Your task to perform on an android device: Go to network settings Image 0: 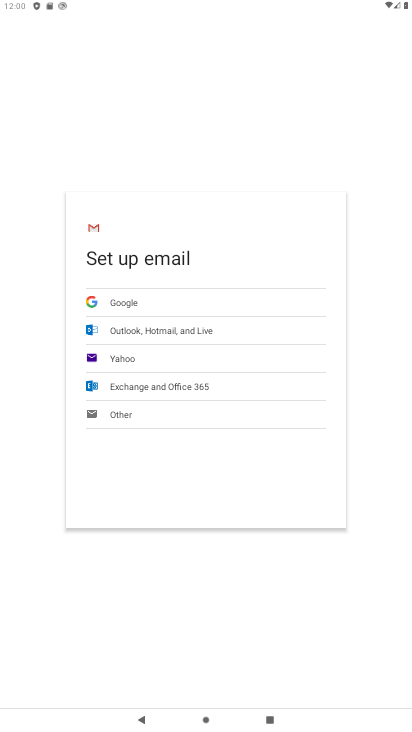
Step 0: press home button
Your task to perform on an android device: Go to network settings Image 1: 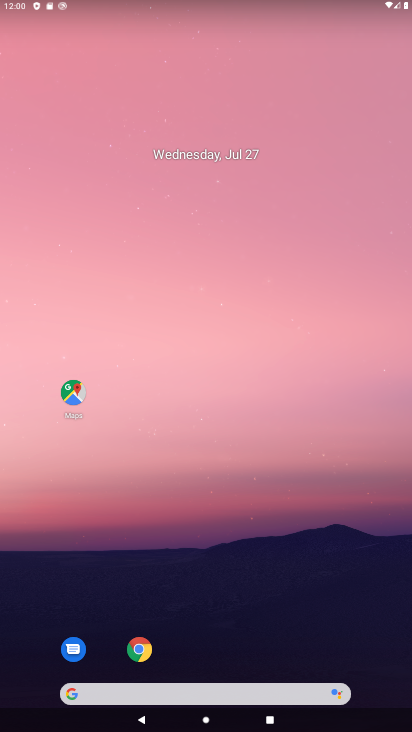
Step 1: drag from (223, 573) to (187, 174)
Your task to perform on an android device: Go to network settings Image 2: 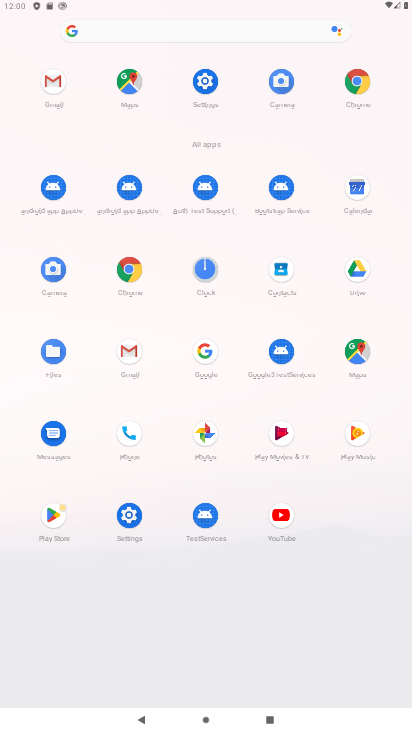
Step 2: click (207, 80)
Your task to perform on an android device: Go to network settings Image 3: 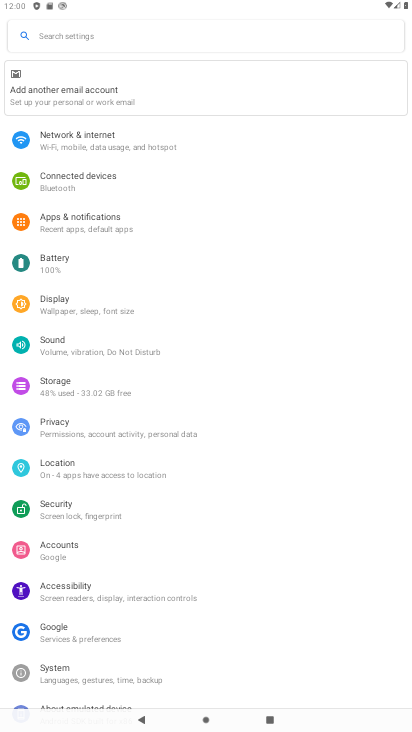
Step 3: click (66, 133)
Your task to perform on an android device: Go to network settings Image 4: 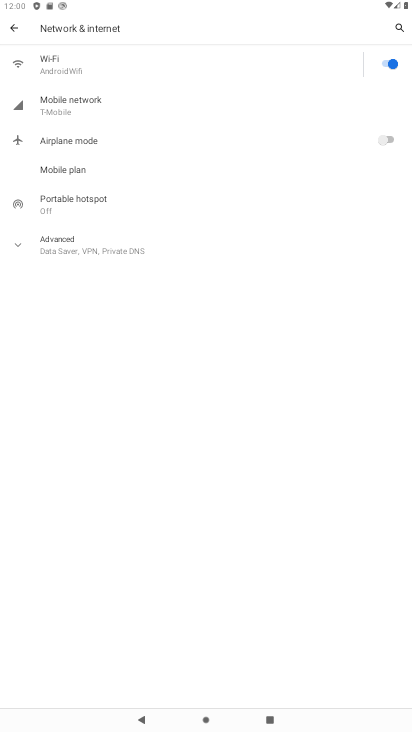
Step 4: task complete